Your task to perform on an android device: Open the stopwatch Image 0: 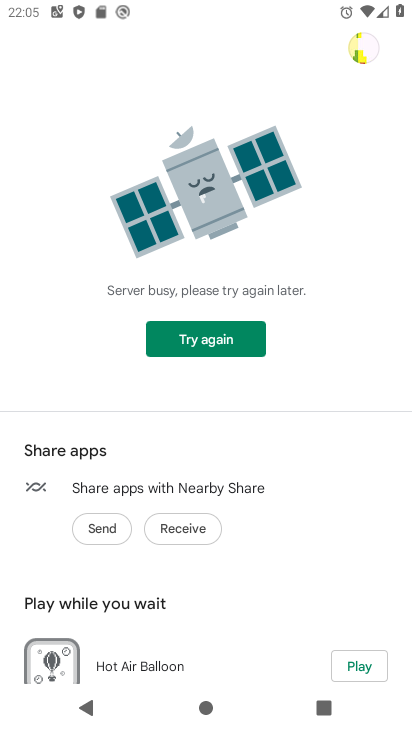
Step 0: press home button
Your task to perform on an android device: Open the stopwatch Image 1: 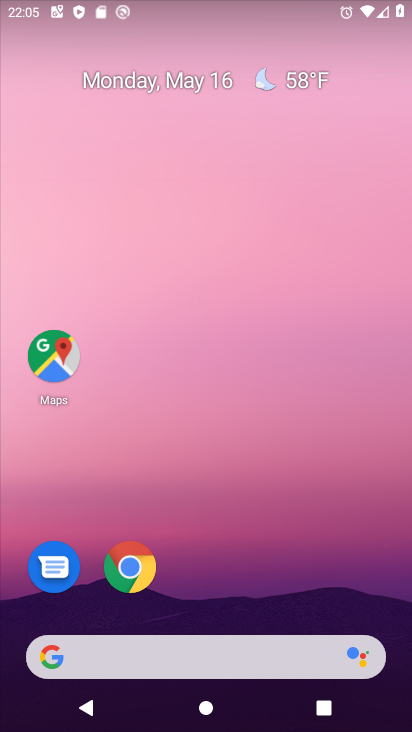
Step 1: drag from (289, 594) to (333, 209)
Your task to perform on an android device: Open the stopwatch Image 2: 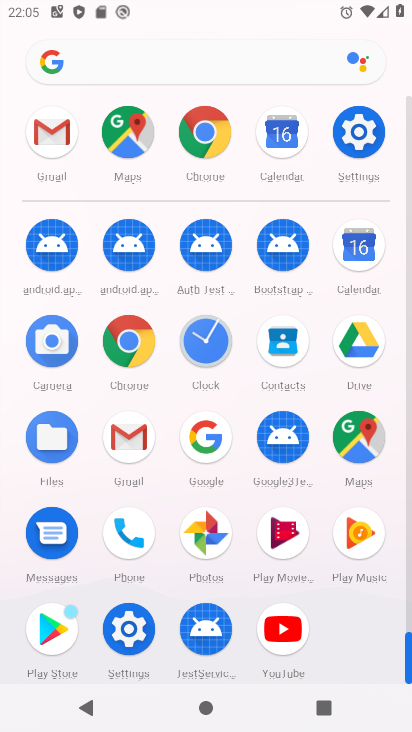
Step 2: click (208, 324)
Your task to perform on an android device: Open the stopwatch Image 3: 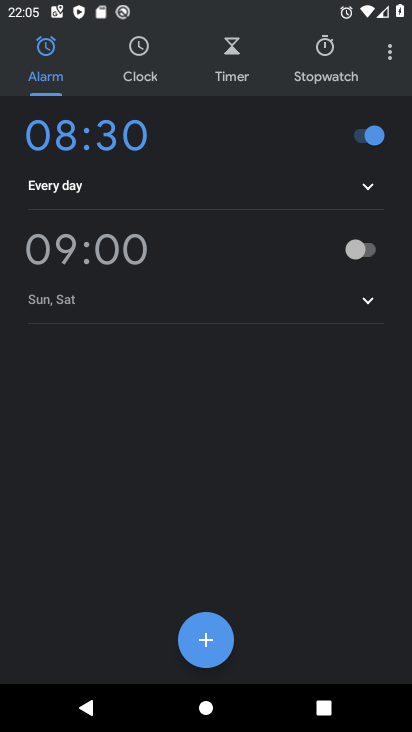
Step 3: click (326, 56)
Your task to perform on an android device: Open the stopwatch Image 4: 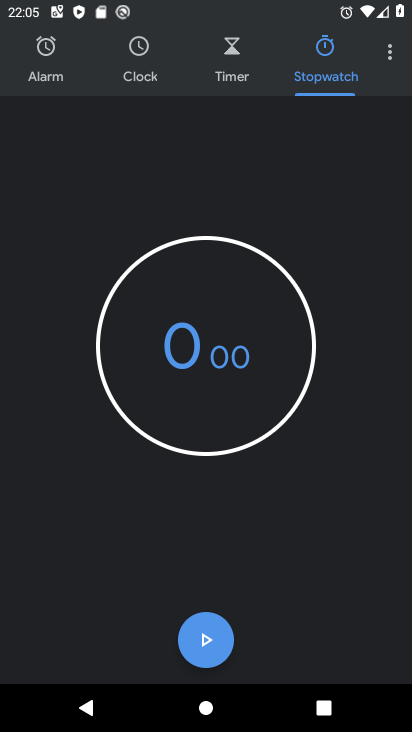
Step 4: task complete